Your task to perform on an android device: turn on priority inbox in the gmail app Image 0: 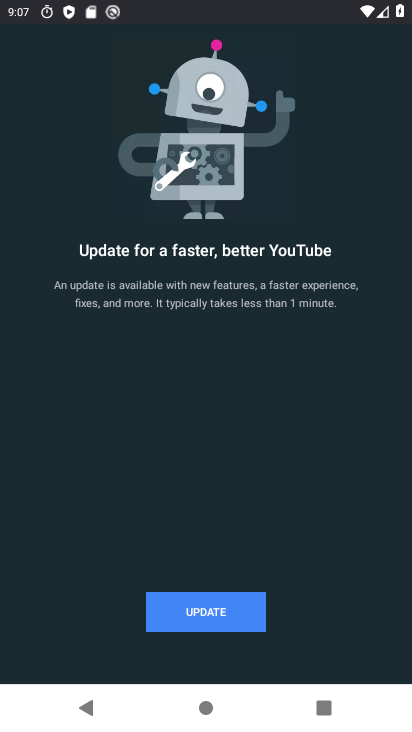
Step 0: press home button
Your task to perform on an android device: turn on priority inbox in the gmail app Image 1: 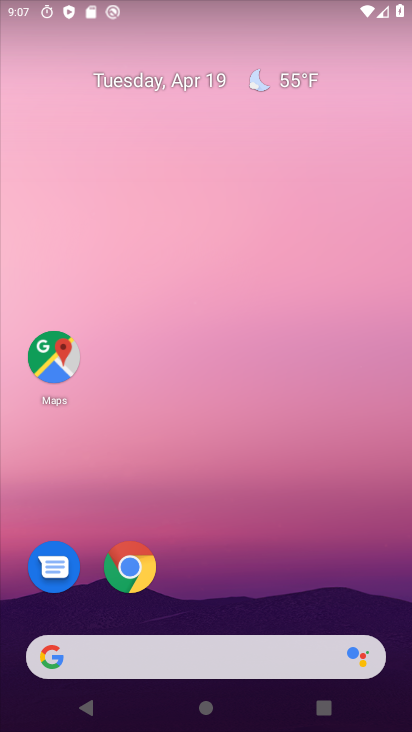
Step 1: drag from (209, 667) to (200, 19)
Your task to perform on an android device: turn on priority inbox in the gmail app Image 2: 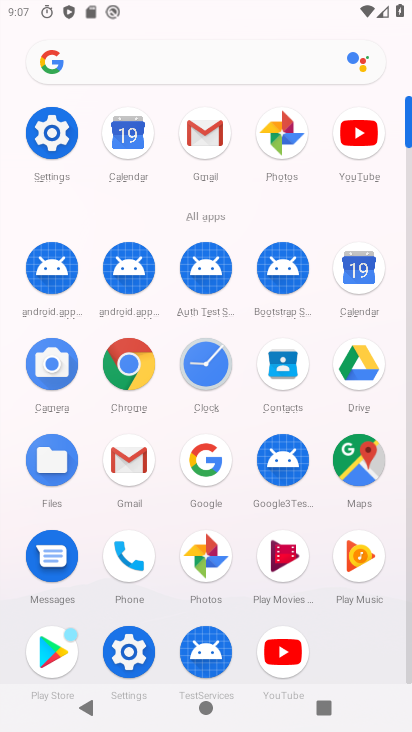
Step 2: click (127, 459)
Your task to perform on an android device: turn on priority inbox in the gmail app Image 3: 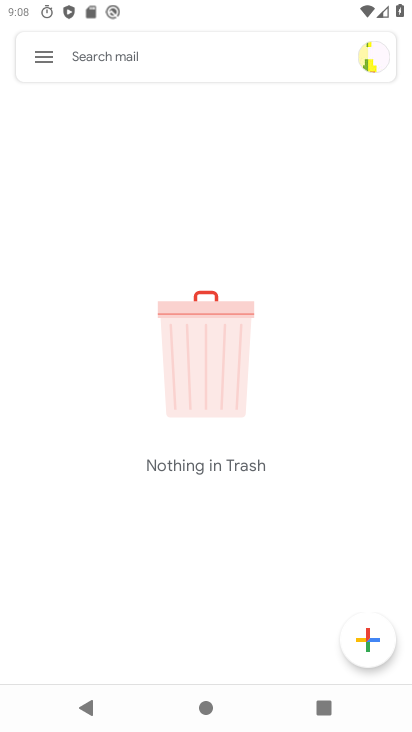
Step 3: click (39, 56)
Your task to perform on an android device: turn on priority inbox in the gmail app Image 4: 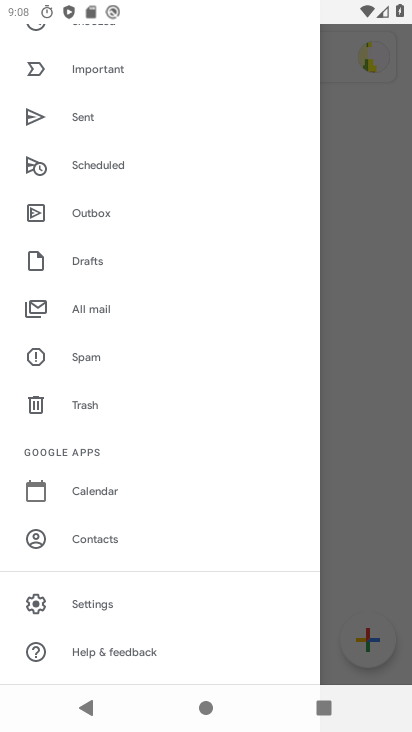
Step 4: click (102, 602)
Your task to perform on an android device: turn on priority inbox in the gmail app Image 5: 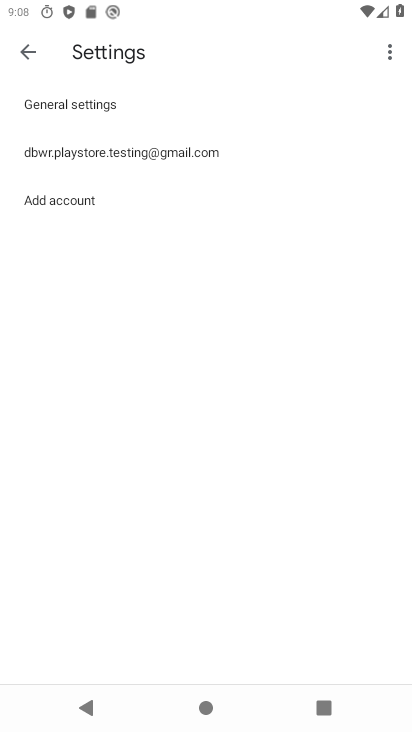
Step 5: click (124, 147)
Your task to perform on an android device: turn on priority inbox in the gmail app Image 6: 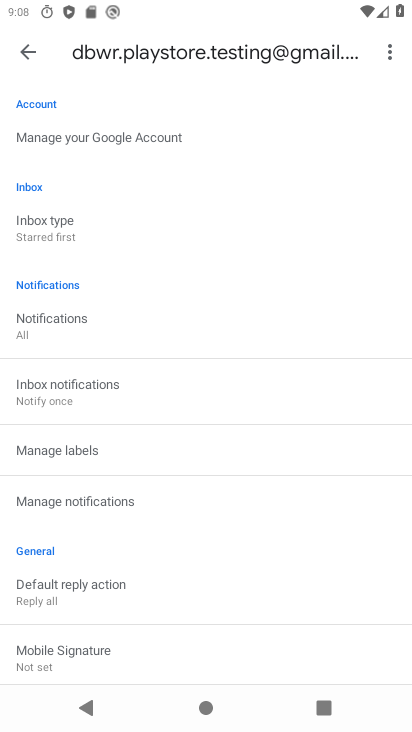
Step 6: click (44, 230)
Your task to perform on an android device: turn on priority inbox in the gmail app Image 7: 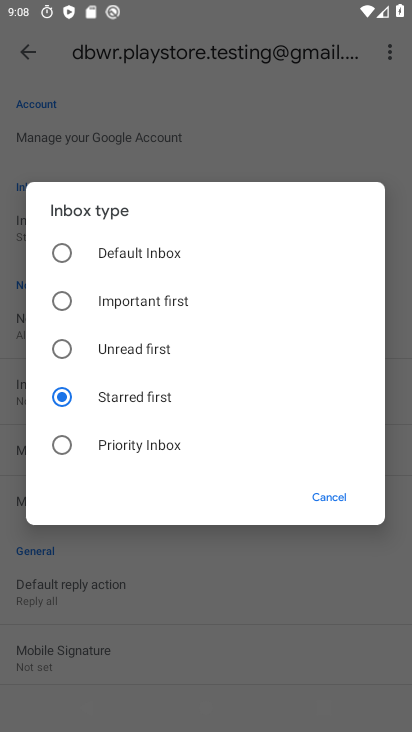
Step 7: click (60, 442)
Your task to perform on an android device: turn on priority inbox in the gmail app Image 8: 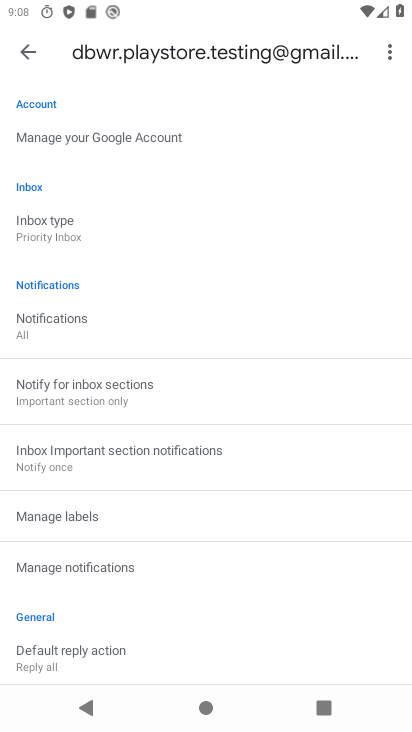
Step 8: task complete